Your task to perform on an android device: Open accessibility settings Image 0: 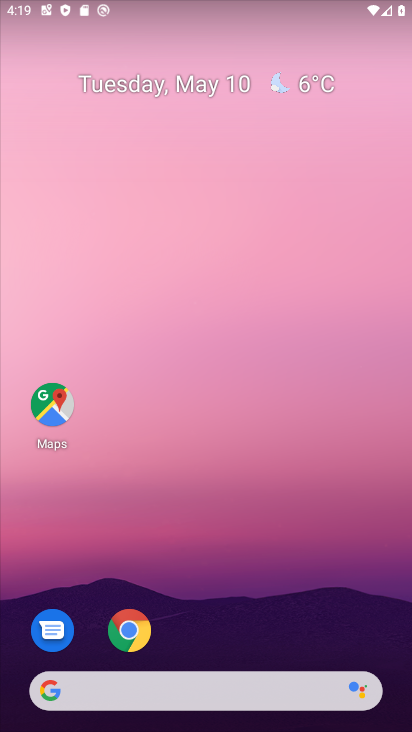
Step 0: drag from (316, 627) to (304, 173)
Your task to perform on an android device: Open accessibility settings Image 1: 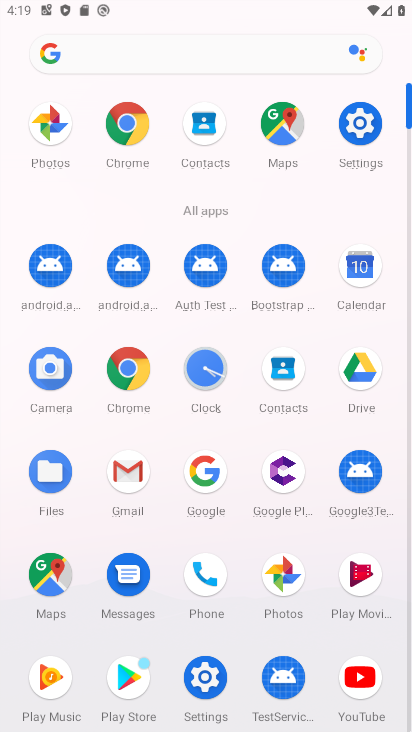
Step 1: click (362, 124)
Your task to perform on an android device: Open accessibility settings Image 2: 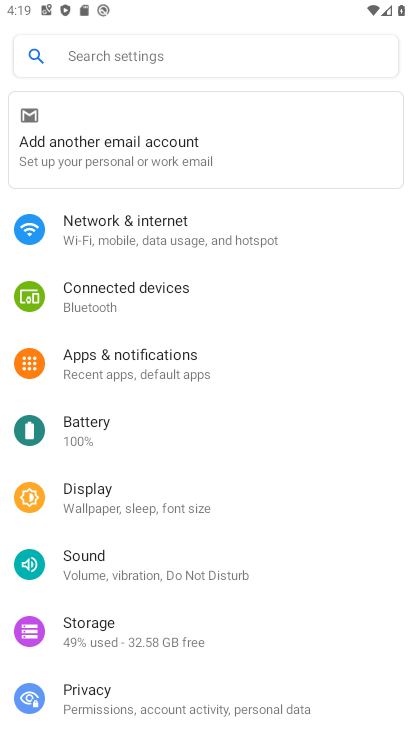
Step 2: drag from (221, 618) to (150, 3)
Your task to perform on an android device: Open accessibility settings Image 3: 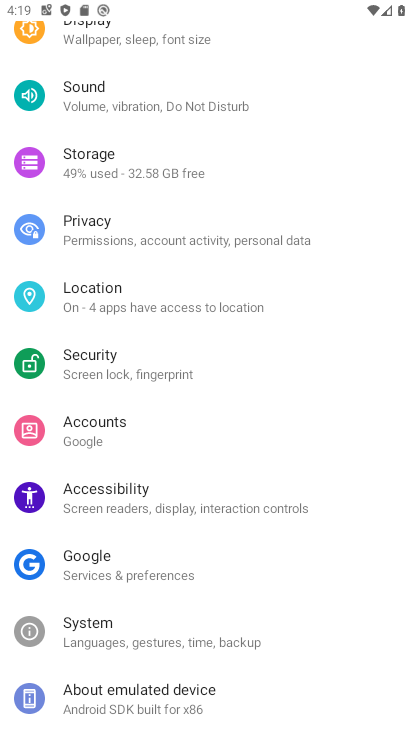
Step 3: drag from (231, 604) to (233, 225)
Your task to perform on an android device: Open accessibility settings Image 4: 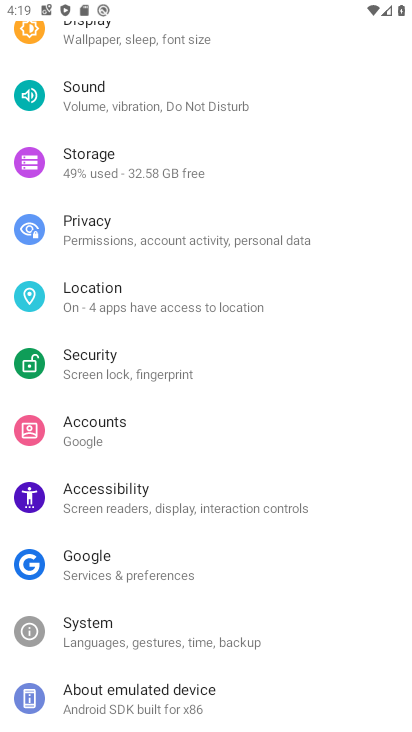
Step 4: click (93, 509)
Your task to perform on an android device: Open accessibility settings Image 5: 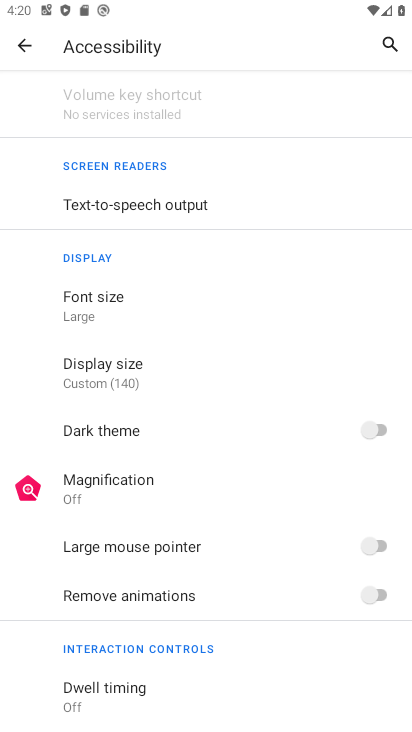
Step 5: task complete